Your task to perform on an android device: clear all cookies in the chrome app Image 0: 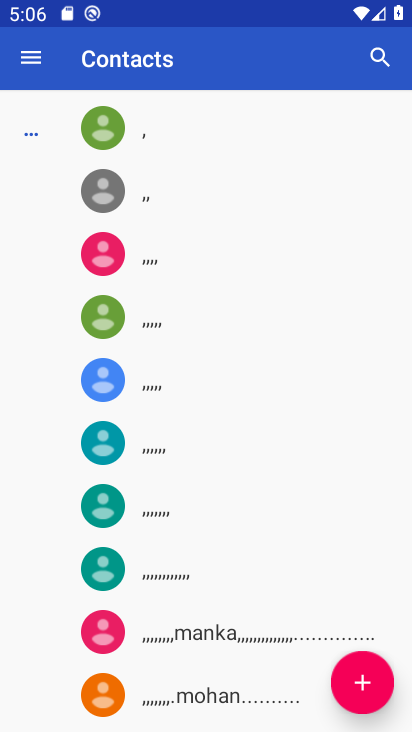
Step 0: press home button
Your task to perform on an android device: clear all cookies in the chrome app Image 1: 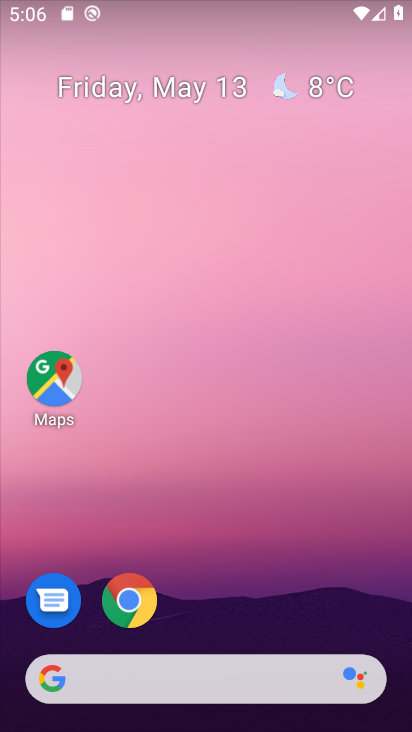
Step 1: drag from (345, 578) to (247, 261)
Your task to perform on an android device: clear all cookies in the chrome app Image 2: 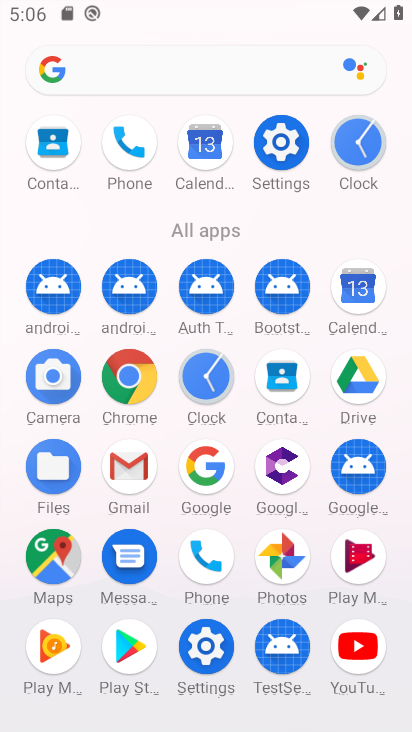
Step 2: click (138, 411)
Your task to perform on an android device: clear all cookies in the chrome app Image 3: 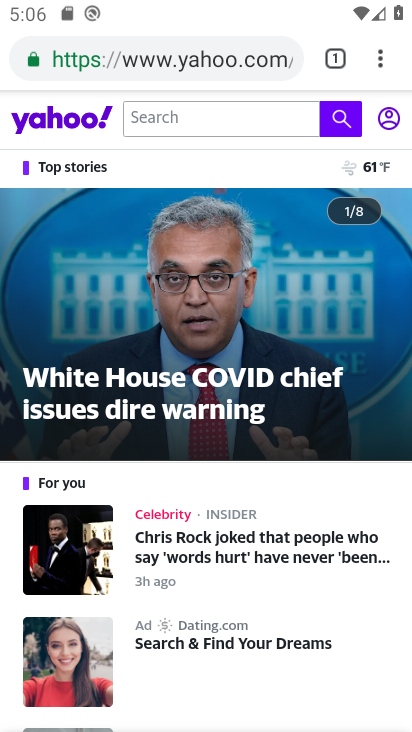
Step 3: click (384, 53)
Your task to perform on an android device: clear all cookies in the chrome app Image 4: 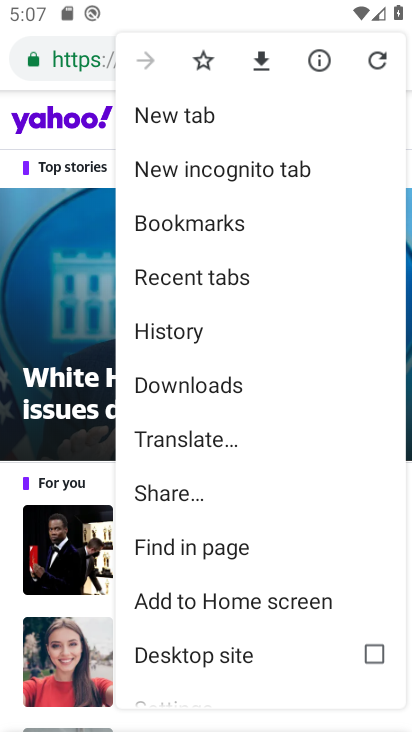
Step 4: drag from (224, 646) to (233, 418)
Your task to perform on an android device: clear all cookies in the chrome app Image 5: 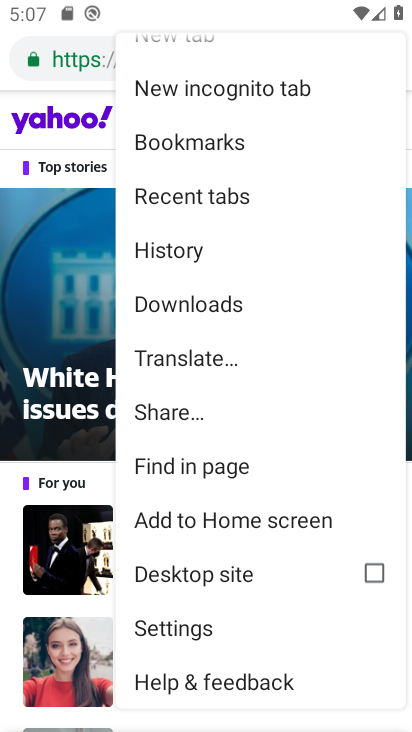
Step 5: click (216, 637)
Your task to perform on an android device: clear all cookies in the chrome app Image 6: 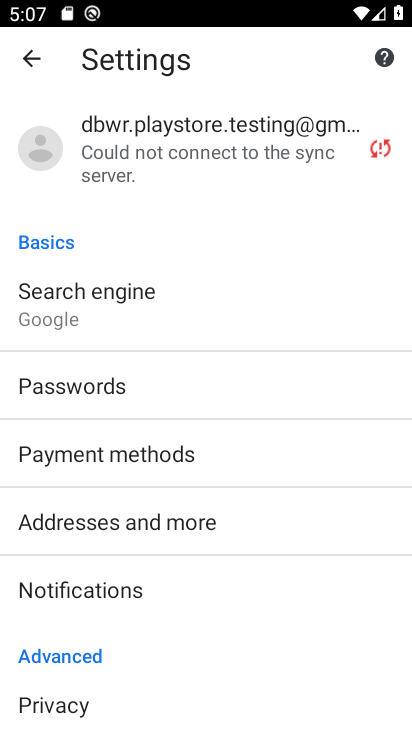
Step 6: drag from (174, 657) to (137, 433)
Your task to perform on an android device: clear all cookies in the chrome app Image 7: 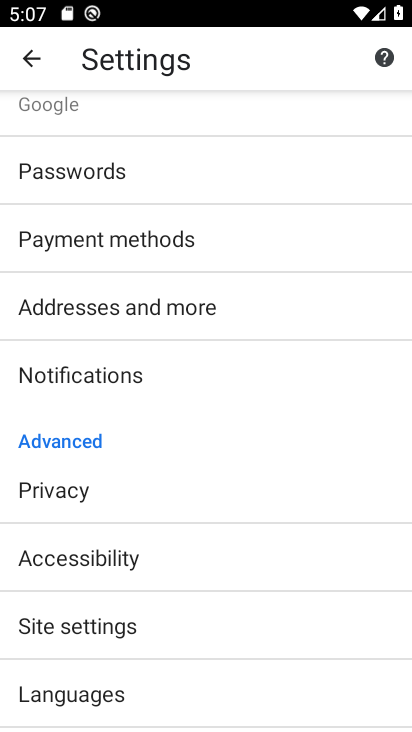
Step 7: drag from (155, 574) to (143, 376)
Your task to perform on an android device: clear all cookies in the chrome app Image 8: 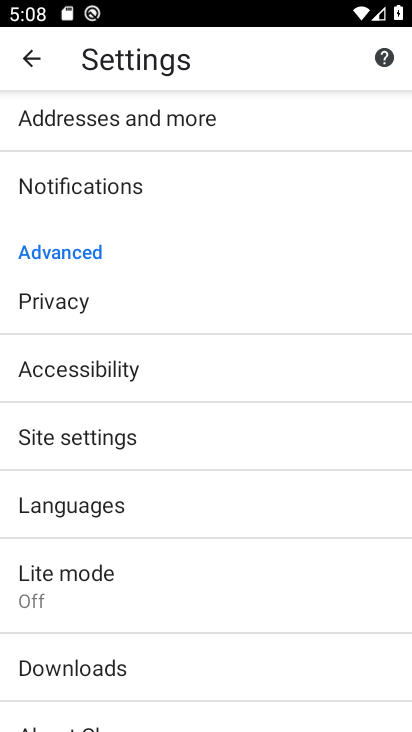
Step 8: click (26, 64)
Your task to perform on an android device: clear all cookies in the chrome app Image 9: 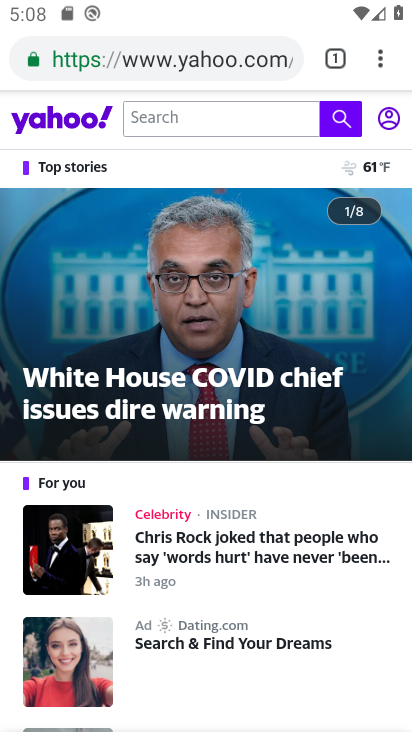
Step 9: click (386, 63)
Your task to perform on an android device: clear all cookies in the chrome app Image 10: 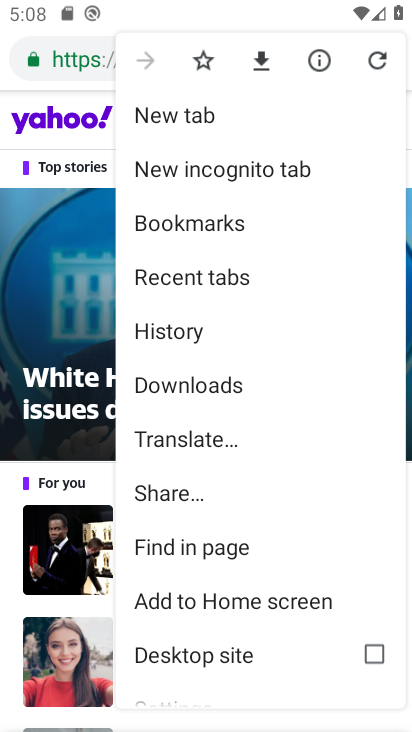
Step 10: drag from (228, 532) to (222, 364)
Your task to perform on an android device: clear all cookies in the chrome app Image 11: 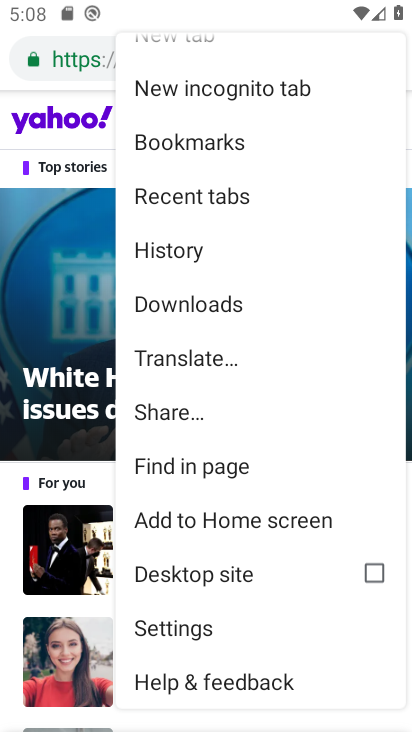
Step 11: click (220, 253)
Your task to perform on an android device: clear all cookies in the chrome app Image 12: 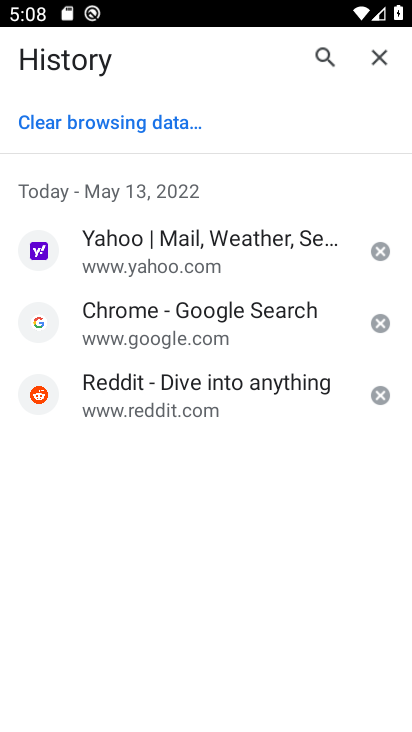
Step 12: click (177, 128)
Your task to perform on an android device: clear all cookies in the chrome app Image 13: 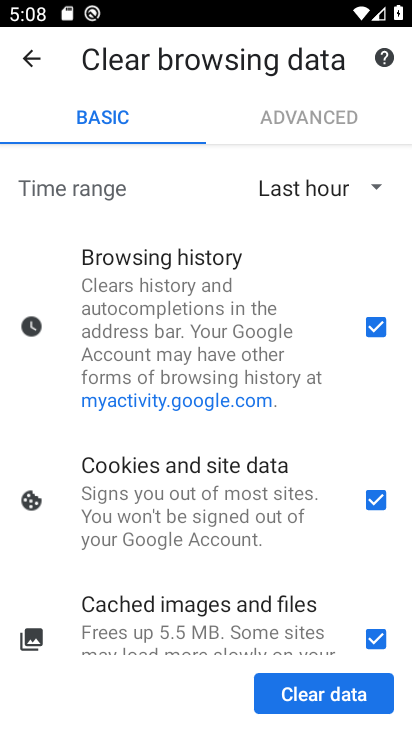
Step 13: click (147, 280)
Your task to perform on an android device: clear all cookies in the chrome app Image 14: 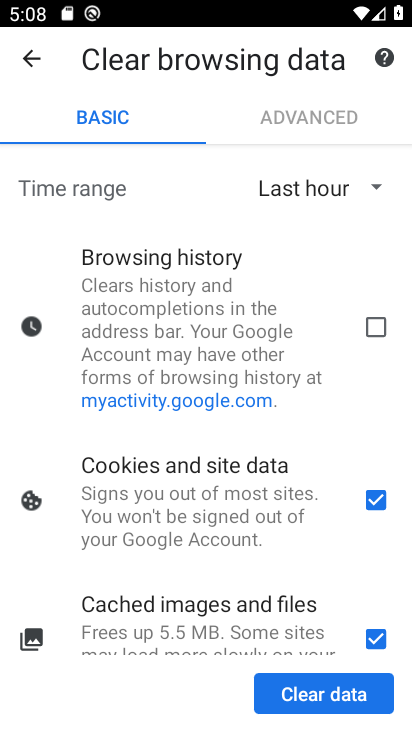
Step 14: click (379, 644)
Your task to perform on an android device: clear all cookies in the chrome app Image 15: 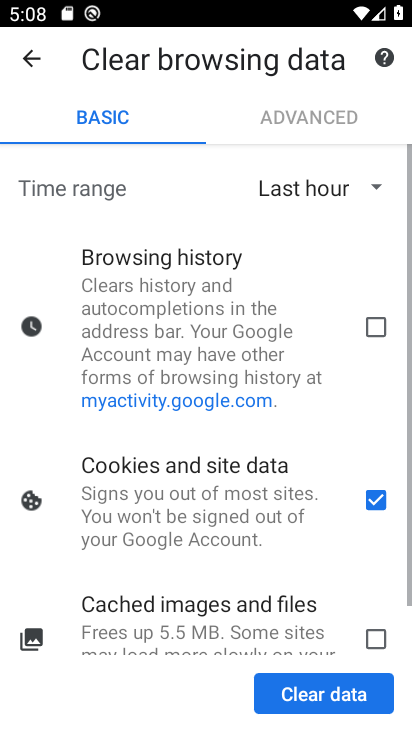
Step 15: click (377, 688)
Your task to perform on an android device: clear all cookies in the chrome app Image 16: 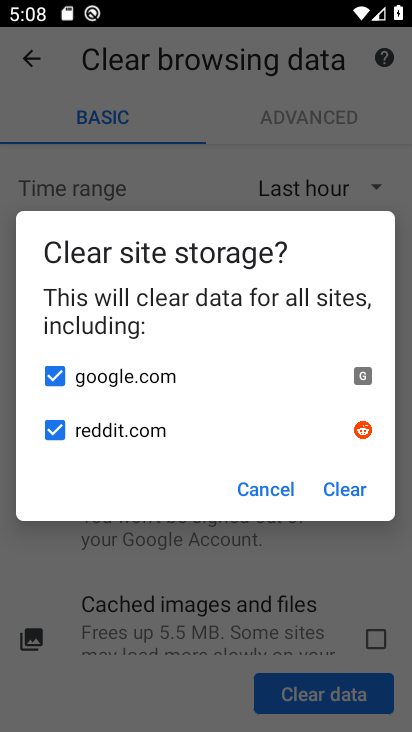
Step 16: click (337, 499)
Your task to perform on an android device: clear all cookies in the chrome app Image 17: 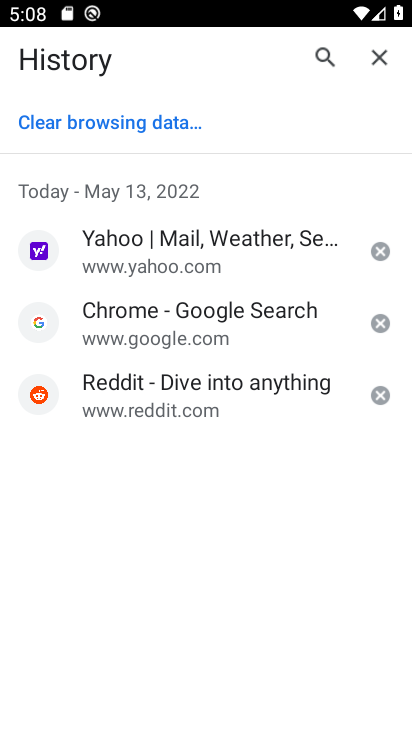
Step 17: task complete